Your task to perform on an android device: turn smart compose on in the gmail app Image 0: 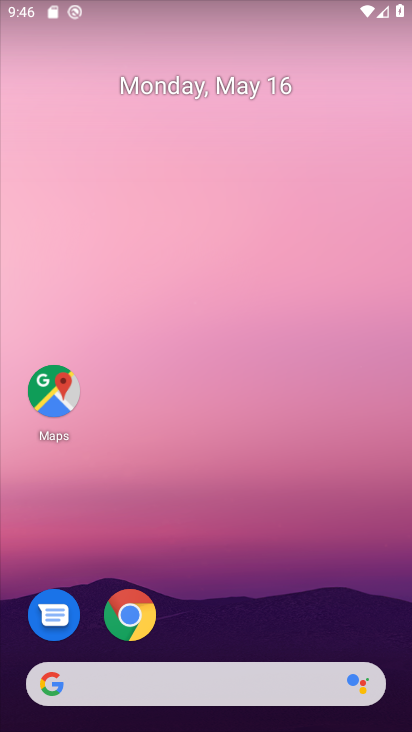
Step 0: drag from (327, 569) to (267, 1)
Your task to perform on an android device: turn smart compose on in the gmail app Image 1: 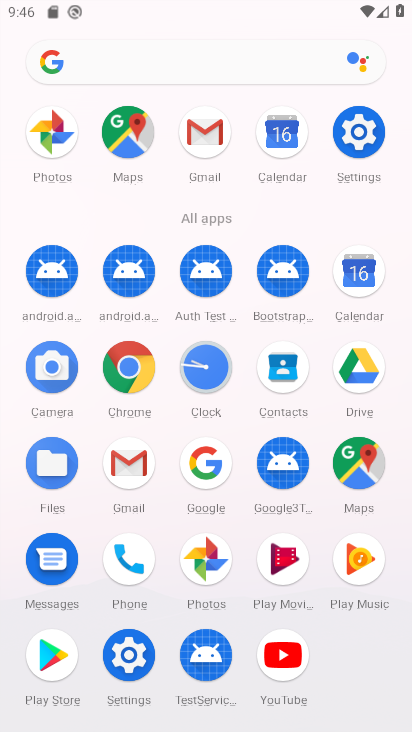
Step 1: drag from (7, 589) to (6, 238)
Your task to perform on an android device: turn smart compose on in the gmail app Image 2: 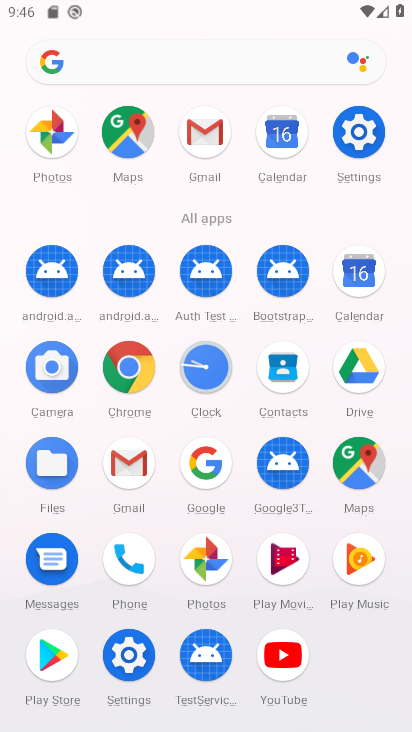
Step 2: drag from (9, 482) to (2, 179)
Your task to perform on an android device: turn smart compose on in the gmail app Image 3: 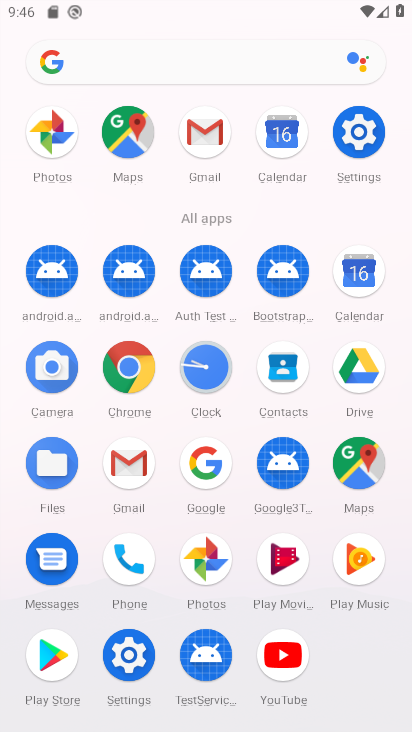
Step 3: click (127, 460)
Your task to perform on an android device: turn smart compose on in the gmail app Image 4: 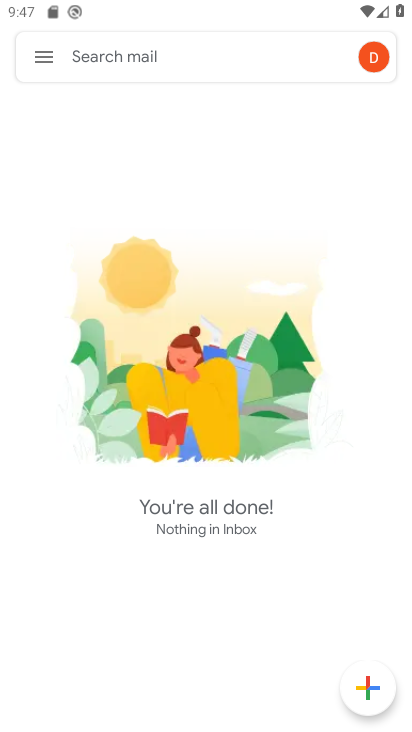
Step 4: click (222, 48)
Your task to perform on an android device: turn smart compose on in the gmail app Image 5: 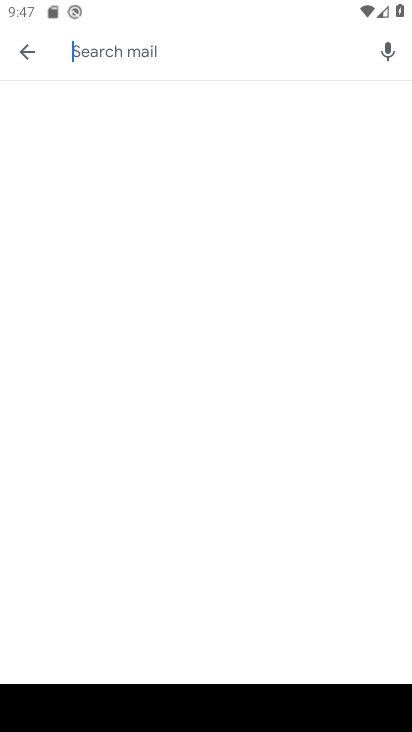
Step 5: click (21, 54)
Your task to perform on an android device: turn smart compose on in the gmail app Image 6: 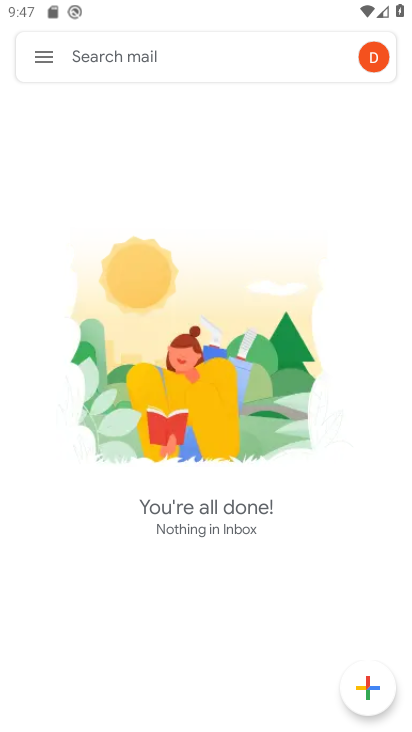
Step 6: click (44, 53)
Your task to perform on an android device: turn smart compose on in the gmail app Image 7: 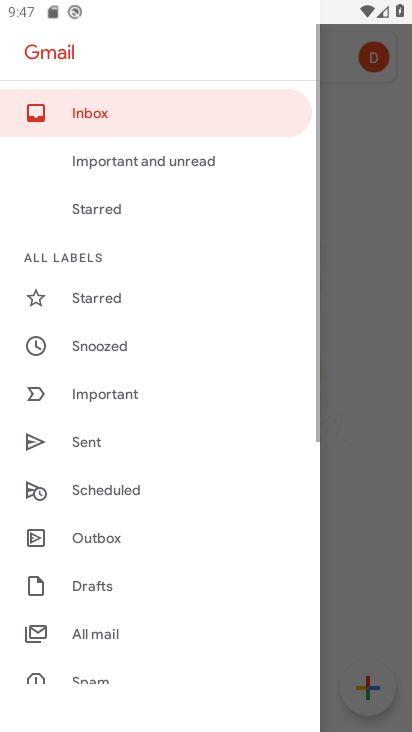
Step 7: drag from (223, 653) to (229, 130)
Your task to perform on an android device: turn smart compose on in the gmail app Image 8: 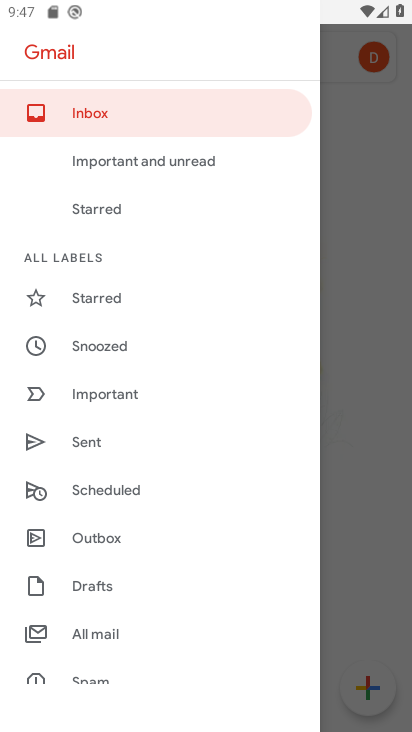
Step 8: drag from (156, 638) to (192, 186)
Your task to perform on an android device: turn smart compose on in the gmail app Image 9: 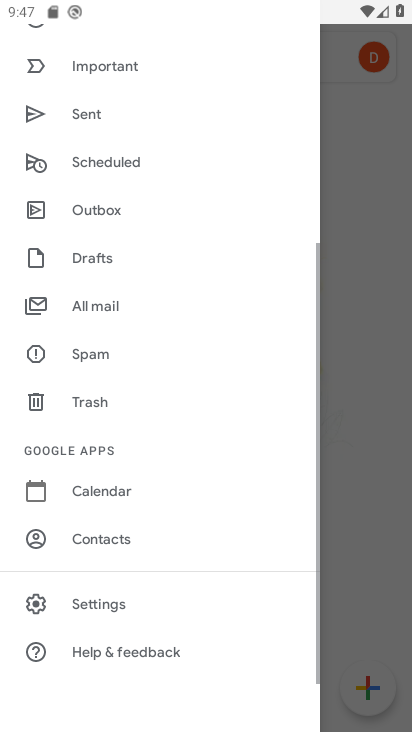
Step 9: click (102, 596)
Your task to perform on an android device: turn smart compose on in the gmail app Image 10: 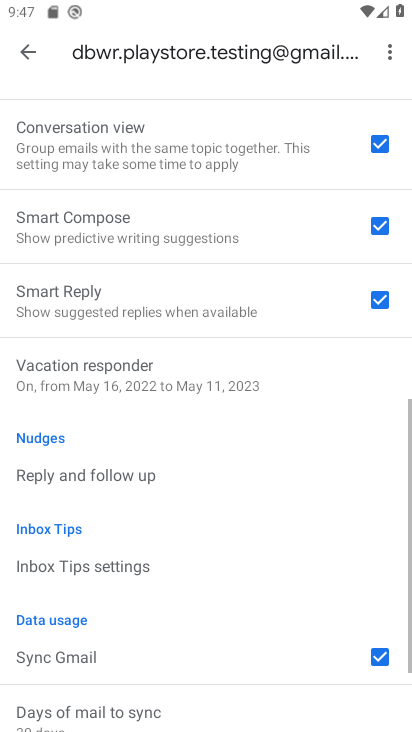
Step 10: task complete